Your task to perform on an android device: Add "bose quietcomfort 35" to the cart on newegg Image 0: 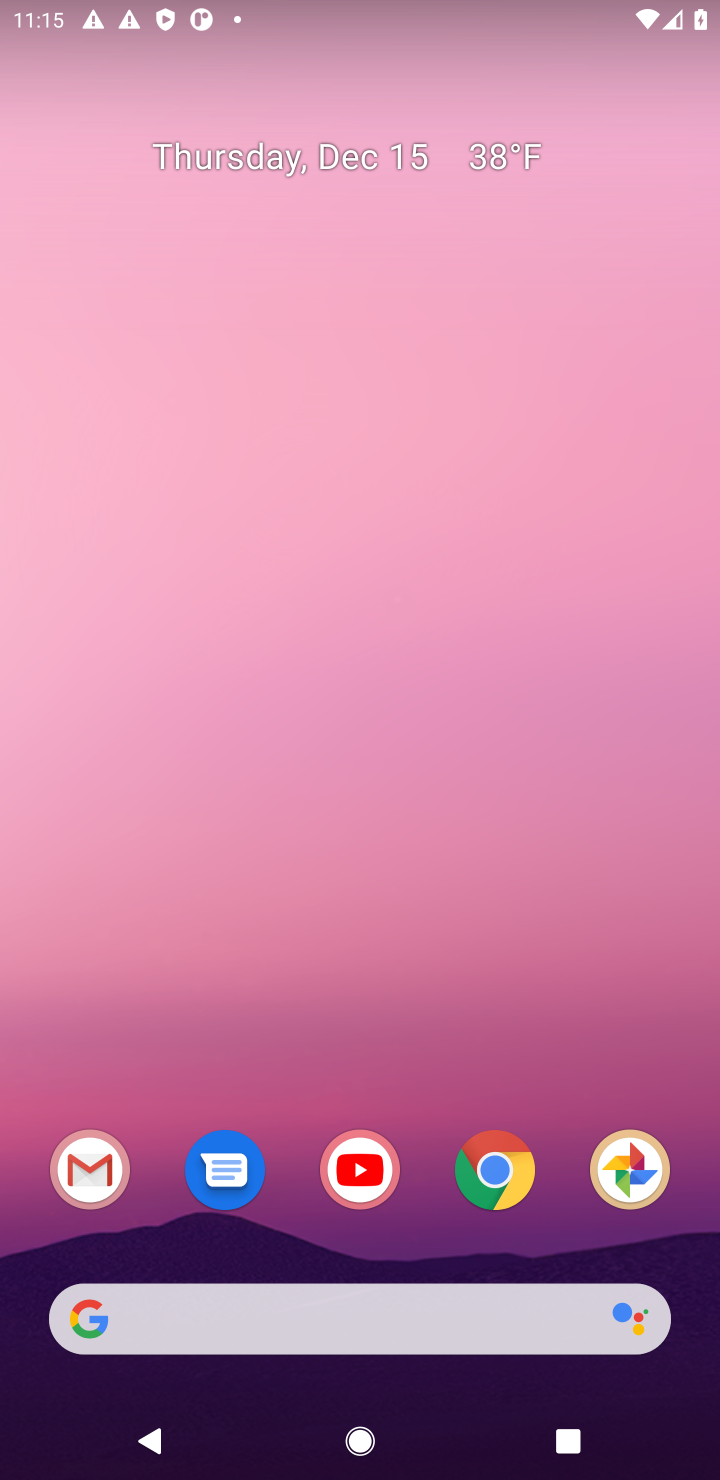
Step 0: click (502, 1179)
Your task to perform on an android device: Add "bose quietcomfort 35" to the cart on newegg Image 1: 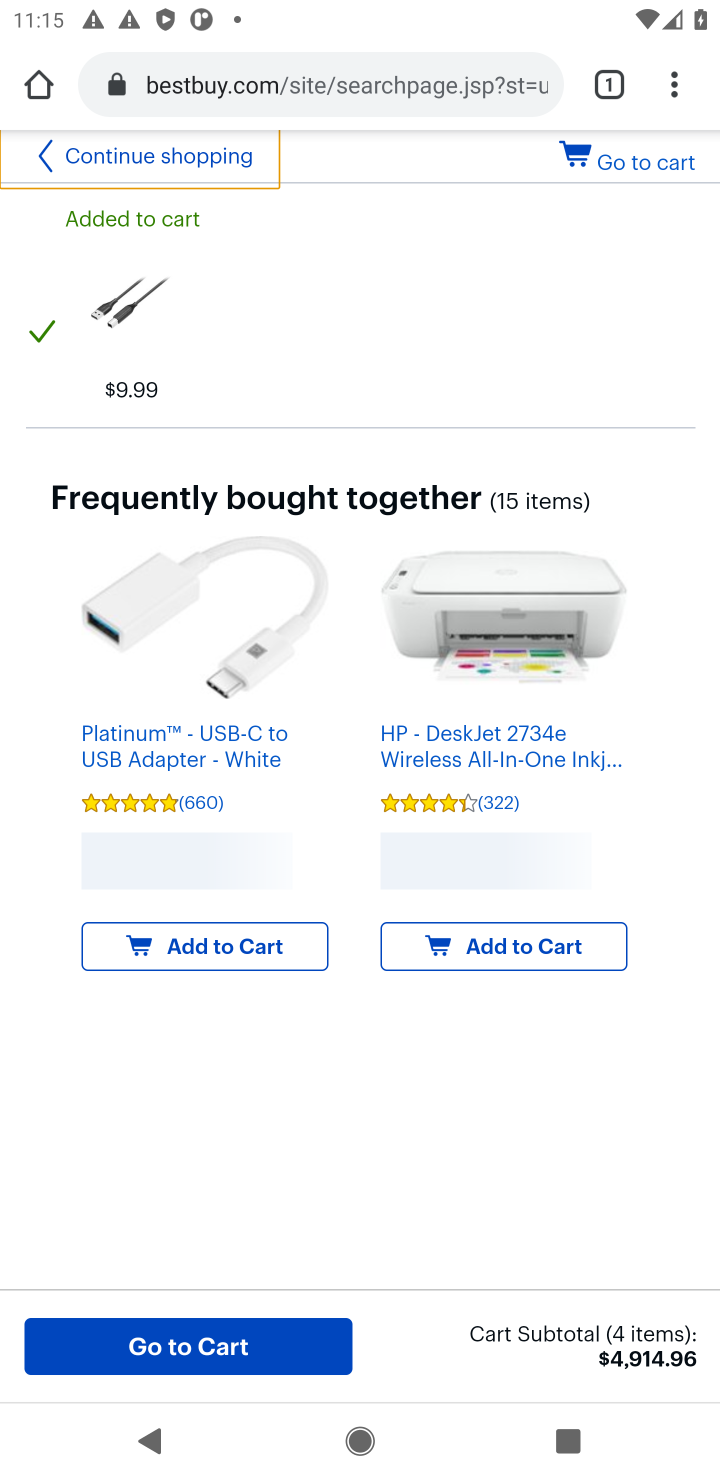
Step 1: click (270, 95)
Your task to perform on an android device: Add "bose quietcomfort 35" to the cart on newegg Image 2: 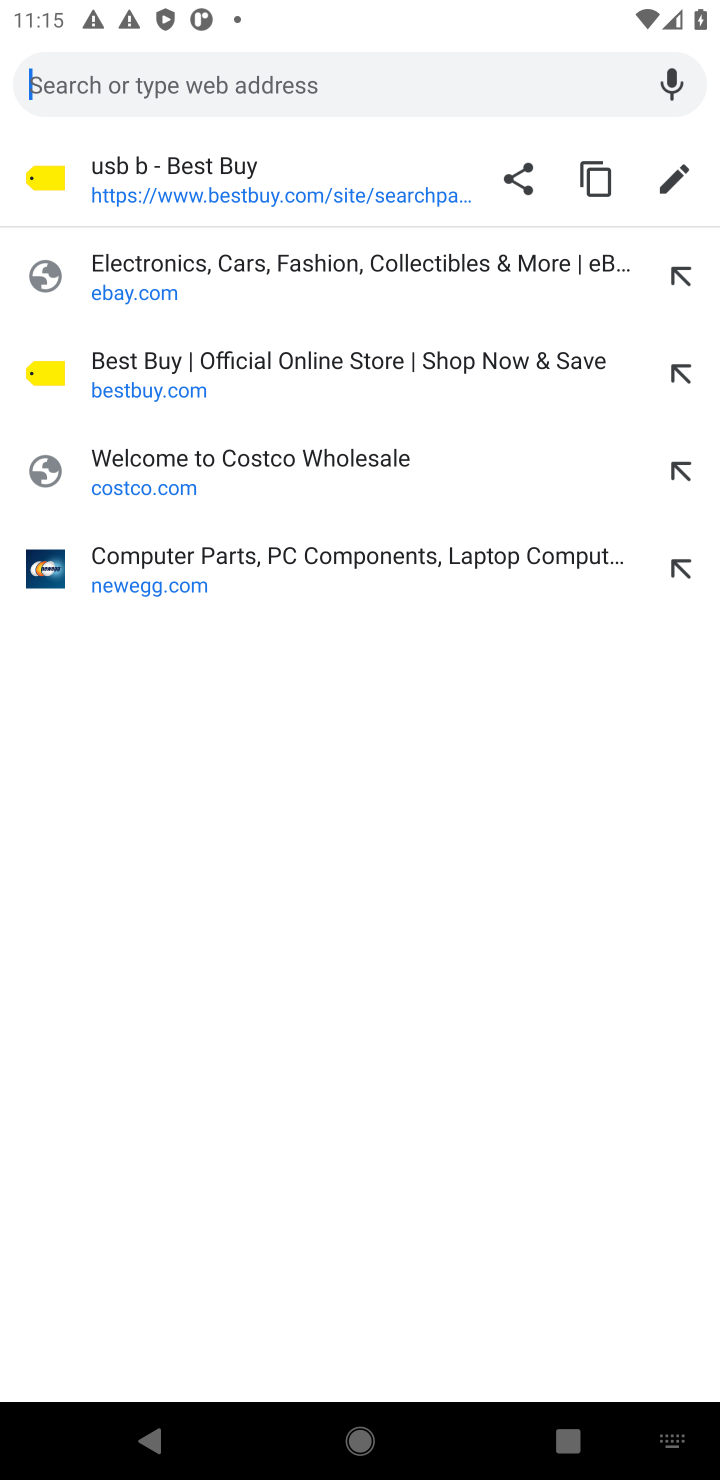
Step 2: click (114, 584)
Your task to perform on an android device: Add "bose quietcomfort 35" to the cart on newegg Image 3: 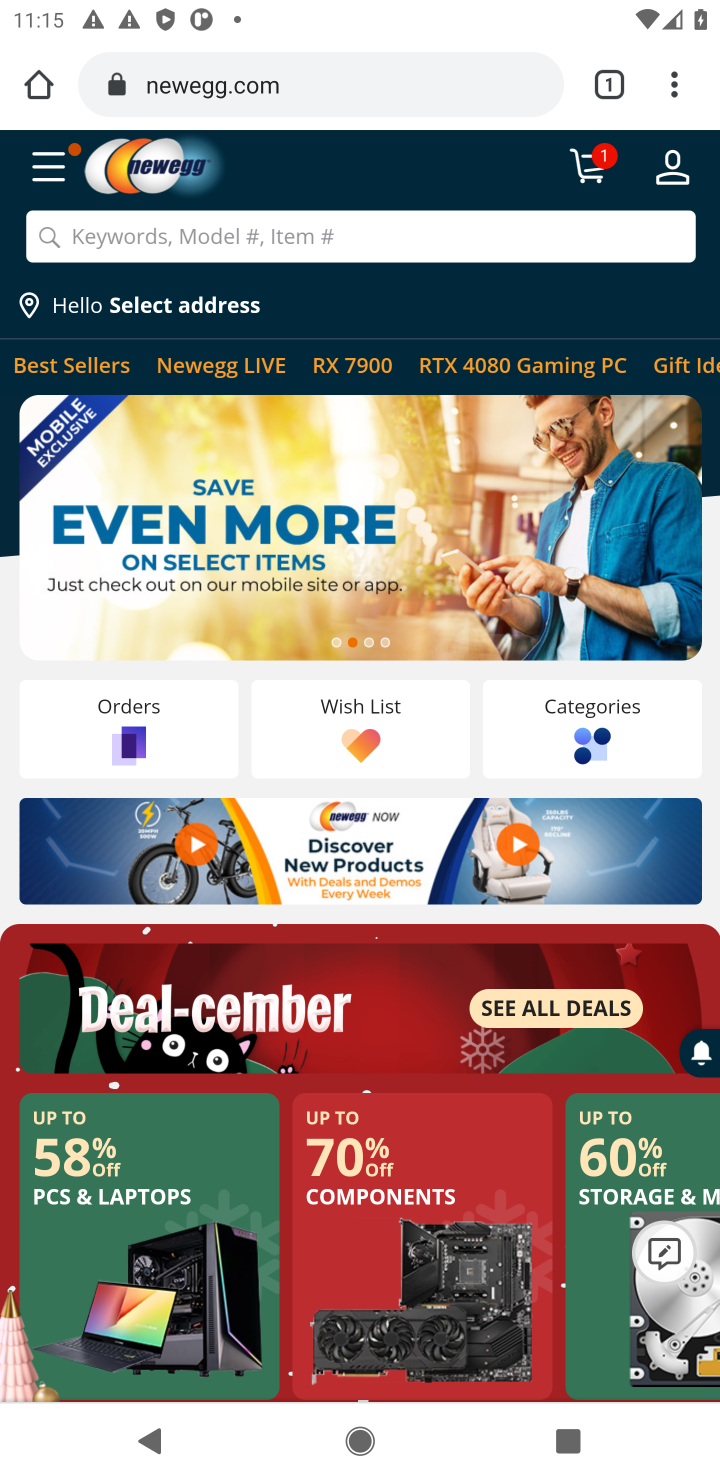
Step 3: click (135, 235)
Your task to perform on an android device: Add "bose quietcomfort 35" to the cart on newegg Image 4: 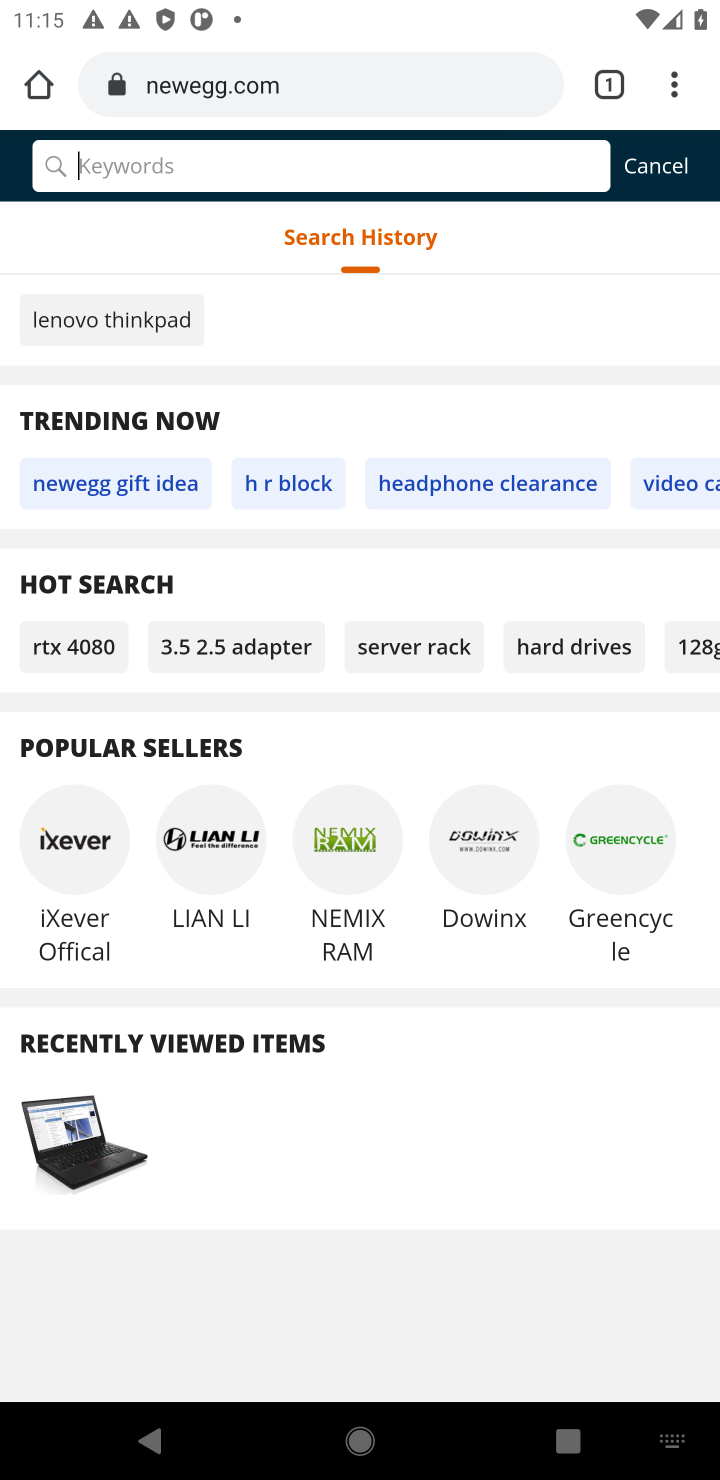
Step 4: type "bose quietcomfort 35"
Your task to perform on an android device: Add "bose quietcomfort 35" to the cart on newegg Image 5: 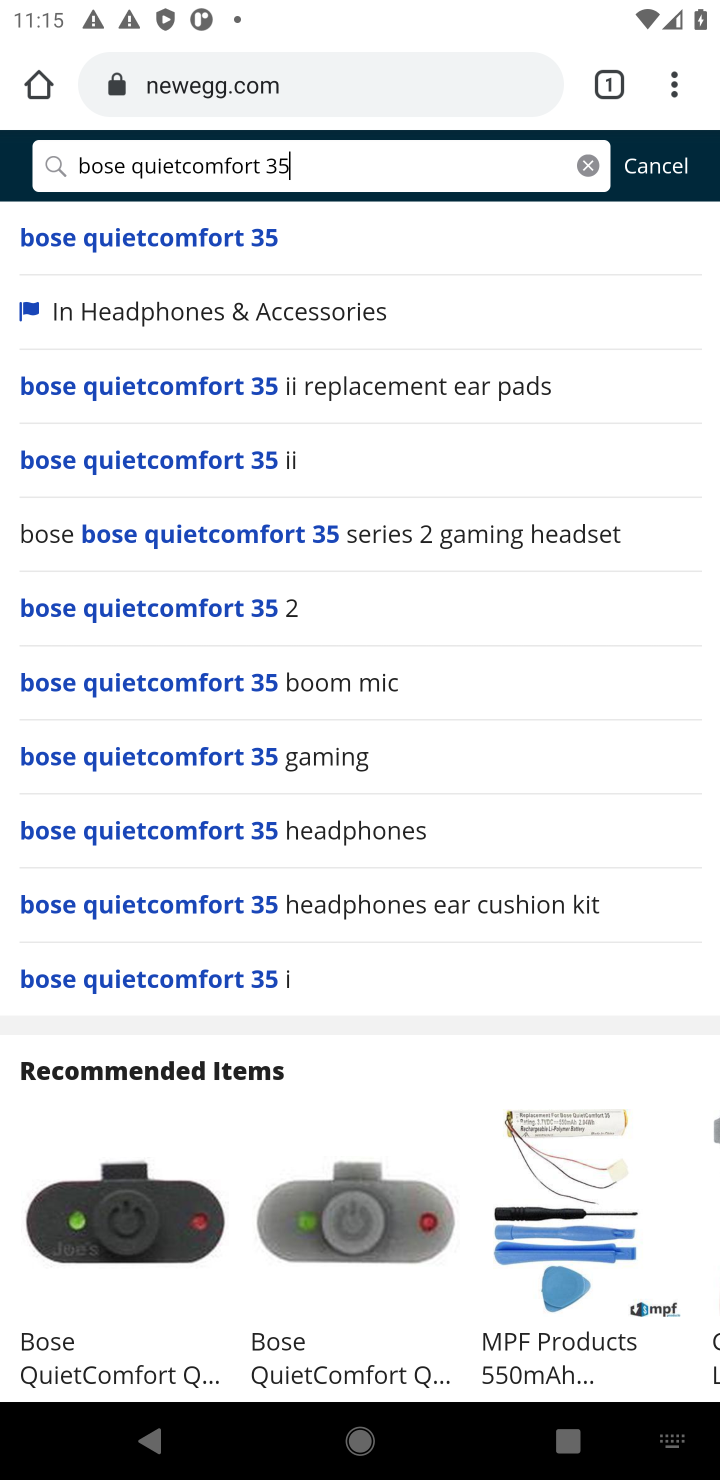
Step 5: click (156, 241)
Your task to perform on an android device: Add "bose quietcomfort 35" to the cart on newegg Image 6: 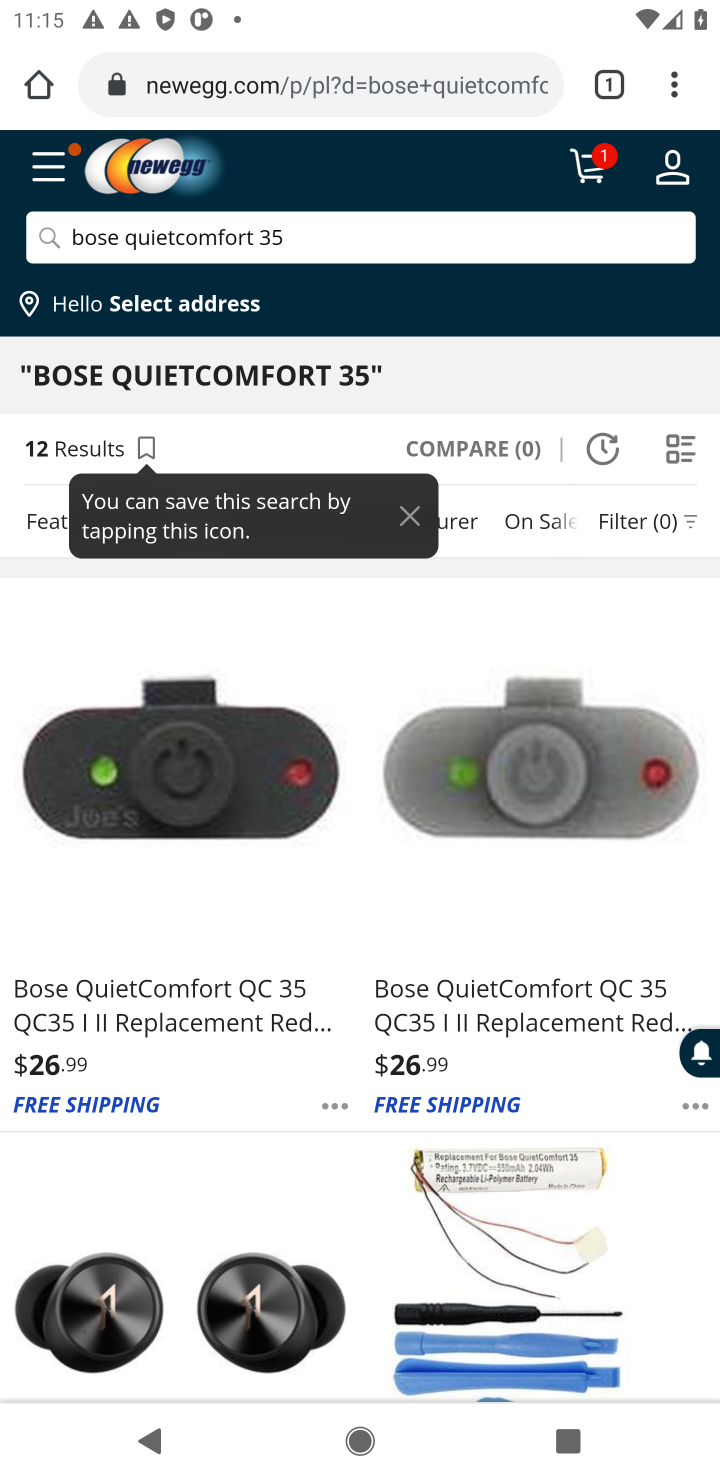
Step 6: click (139, 1025)
Your task to perform on an android device: Add "bose quietcomfort 35" to the cart on newegg Image 7: 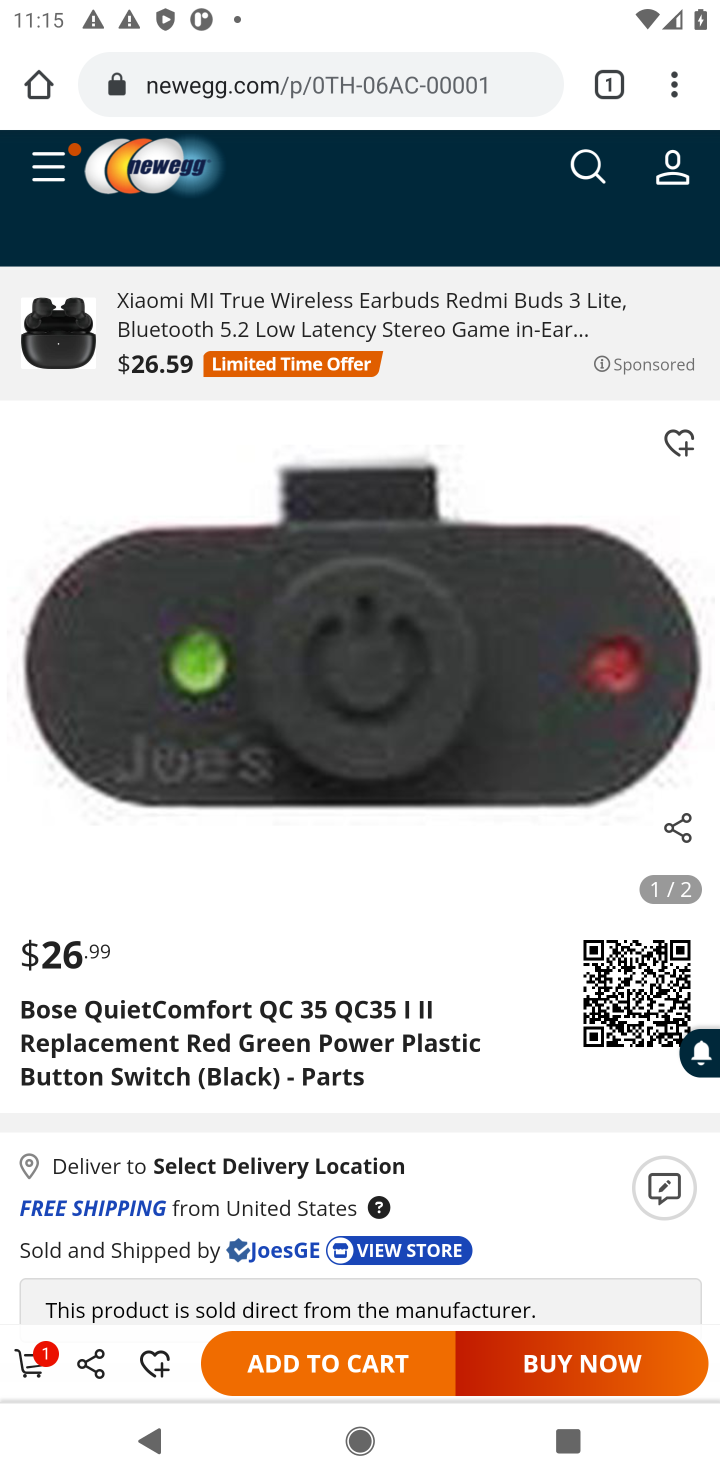
Step 7: click (309, 1369)
Your task to perform on an android device: Add "bose quietcomfort 35" to the cart on newegg Image 8: 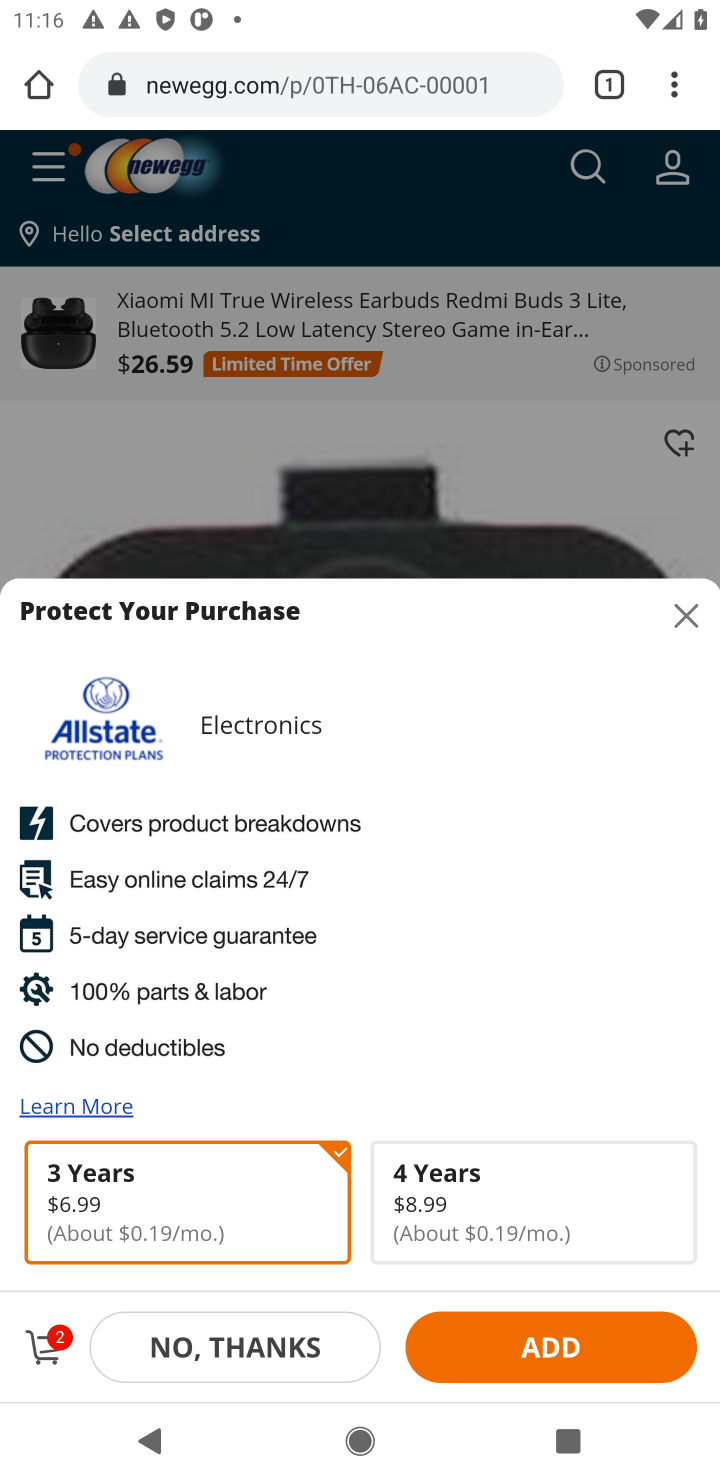
Step 8: task complete